Your task to perform on an android device: open wifi settings Image 0: 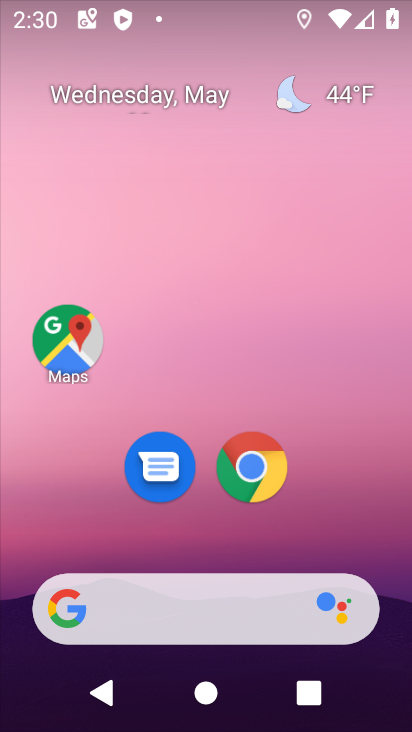
Step 0: drag from (276, 515) to (36, 2)
Your task to perform on an android device: open wifi settings Image 1: 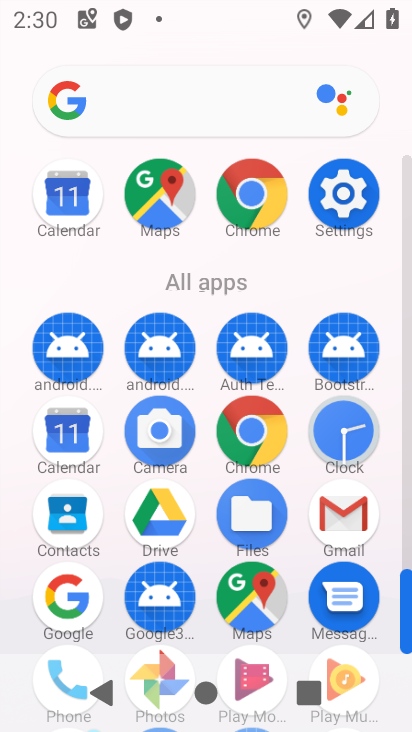
Step 1: click (328, 196)
Your task to perform on an android device: open wifi settings Image 2: 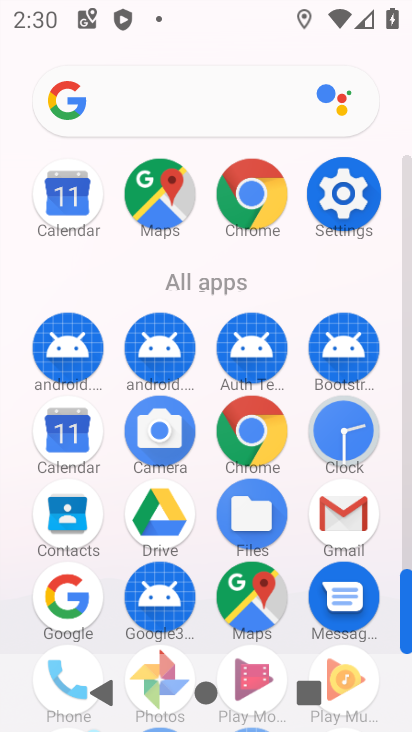
Step 2: click (353, 199)
Your task to perform on an android device: open wifi settings Image 3: 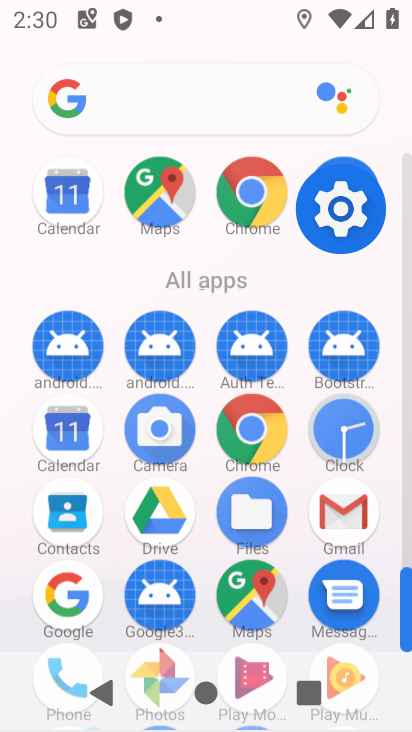
Step 3: click (346, 211)
Your task to perform on an android device: open wifi settings Image 4: 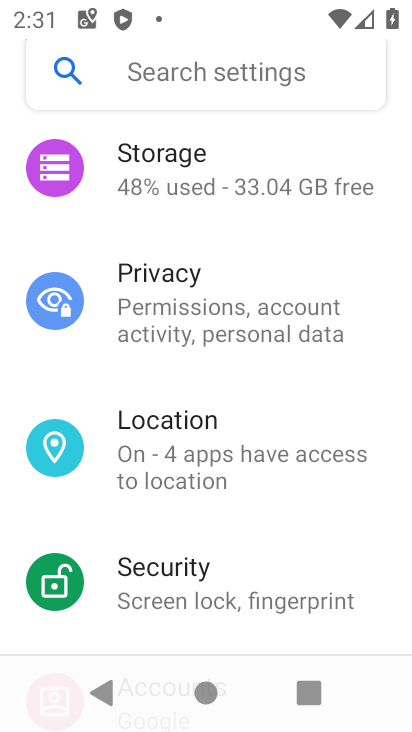
Step 4: drag from (228, 263) to (287, 500)
Your task to perform on an android device: open wifi settings Image 5: 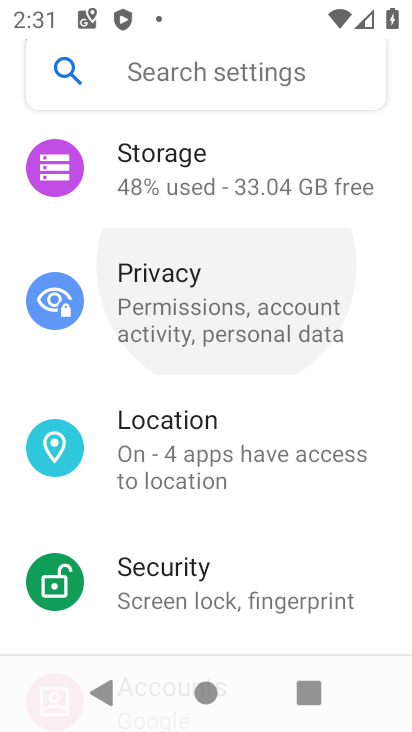
Step 5: drag from (197, 252) to (271, 545)
Your task to perform on an android device: open wifi settings Image 6: 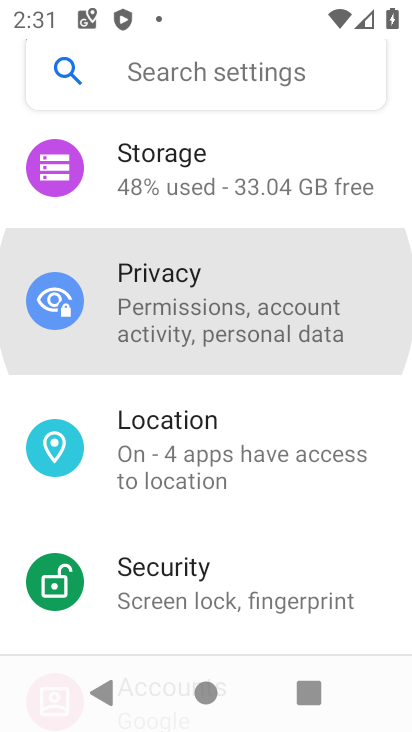
Step 6: drag from (212, 283) to (290, 590)
Your task to perform on an android device: open wifi settings Image 7: 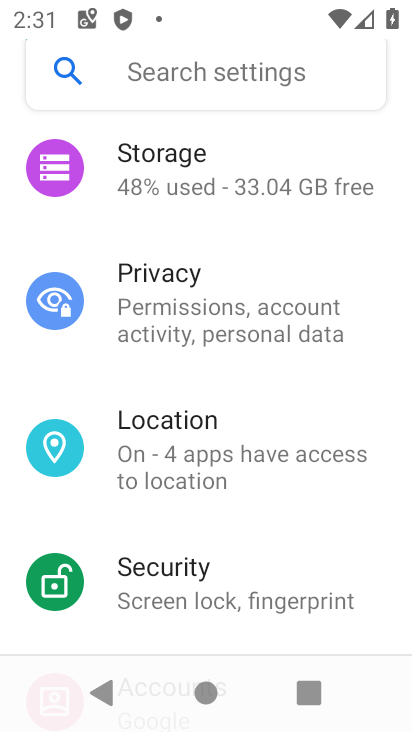
Step 7: drag from (155, 264) to (272, 534)
Your task to perform on an android device: open wifi settings Image 8: 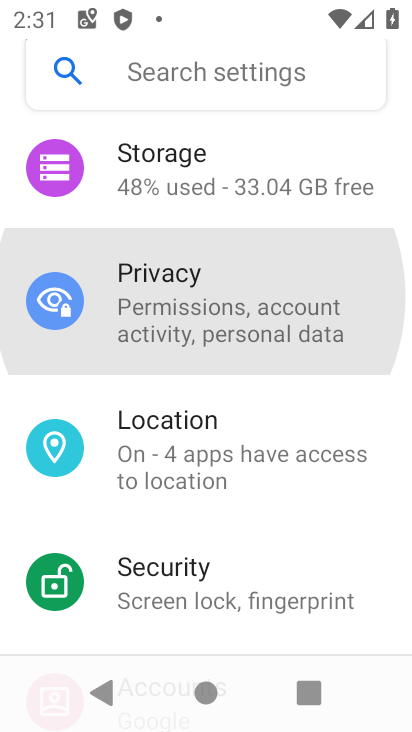
Step 8: drag from (204, 261) to (223, 450)
Your task to perform on an android device: open wifi settings Image 9: 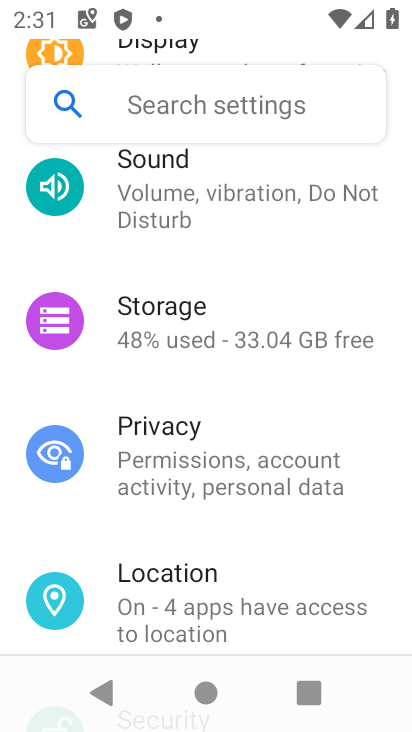
Step 9: drag from (154, 207) to (241, 532)
Your task to perform on an android device: open wifi settings Image 10: 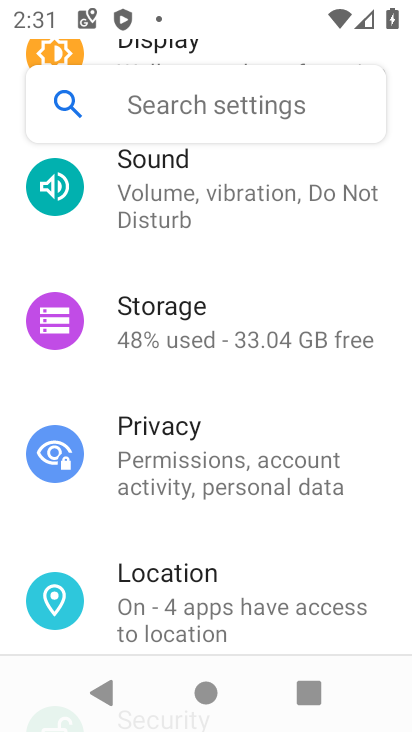
Step 10: drag from (177, 220) to (234, 465)
Your task to perform on an android device: open wifi settings Image 11: 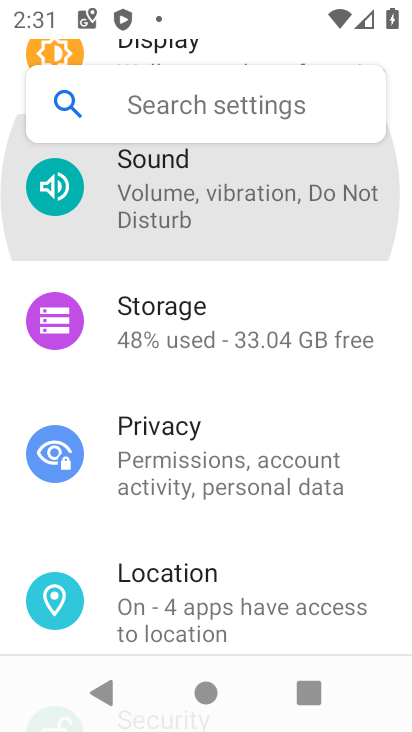
Step 11: drag from (166, 243) to (233, 459)
Your task to perform on an android device: open wifi settings Image 12: 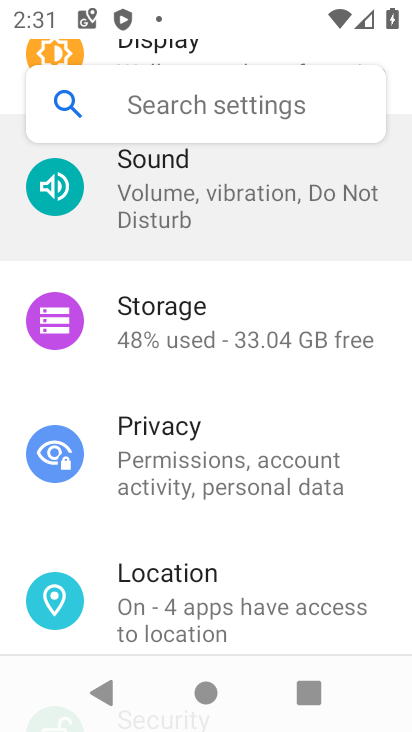
Step 12: drag from (207, 157) to (267, 455)
Your task to perform on an android device: open wifi settings Image 13: 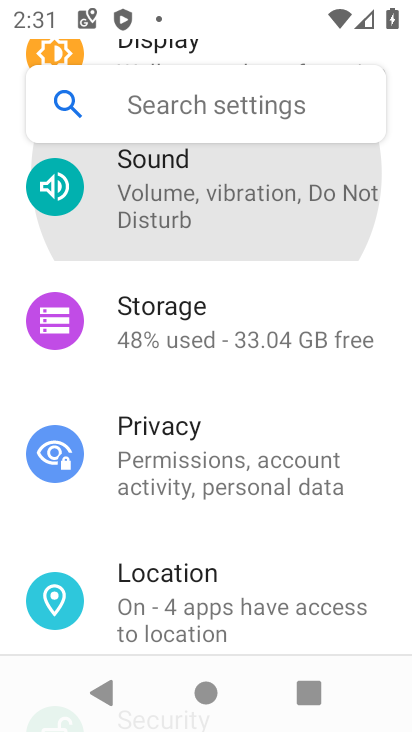
Step 13: drag from (220, 261) to (194, 456)
Your task to perform on an android device: open wifi settings Image 14: 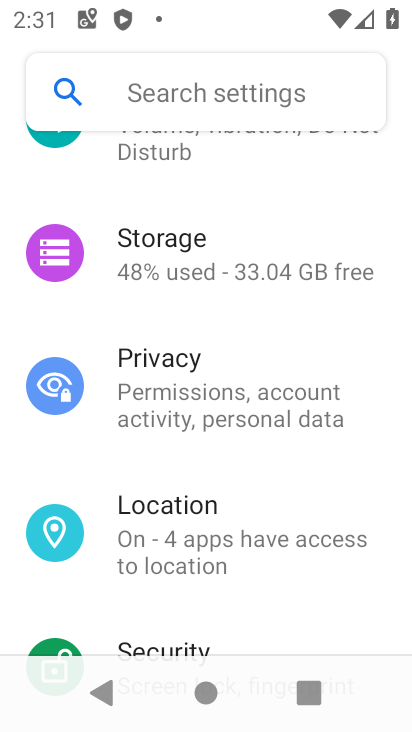
Step 14: drag from (190, 301) to (293, 496)
Your task to perform on an android device: open wifi settings Image 15: 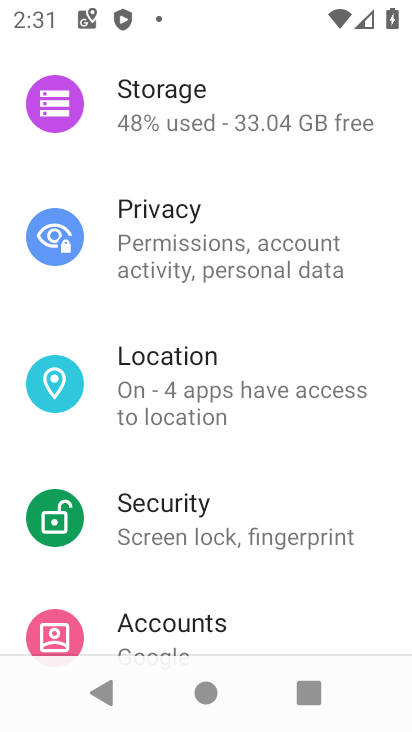
Step 15: drag from (192, 293) to (224, 469)
Your task to perform on an android device: open wifi settings Image 16: 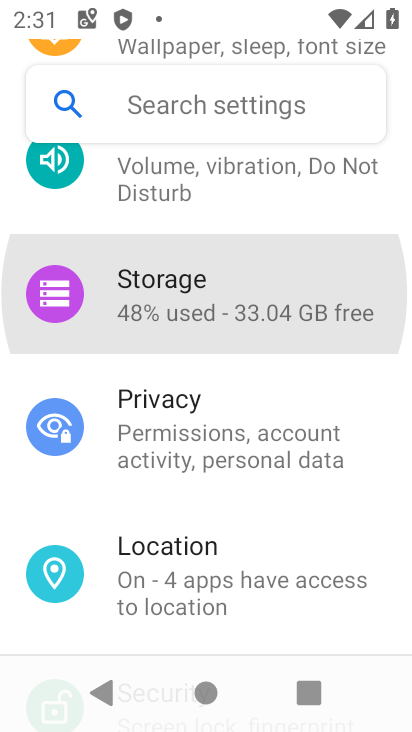
Step 16: drag from (210, 303) to (222, 469)
Your task to perform on an android device: open wifi settings Image 17: 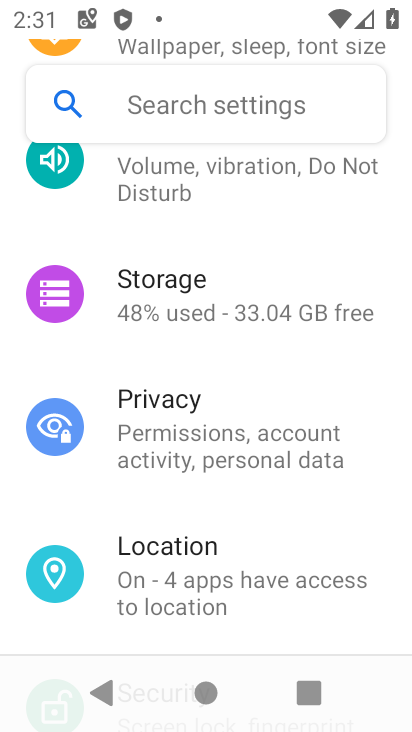
Step 17: drag from (149, 304) to (193, 469)
Your task to perform on an android device: open wifi settings Image 18: 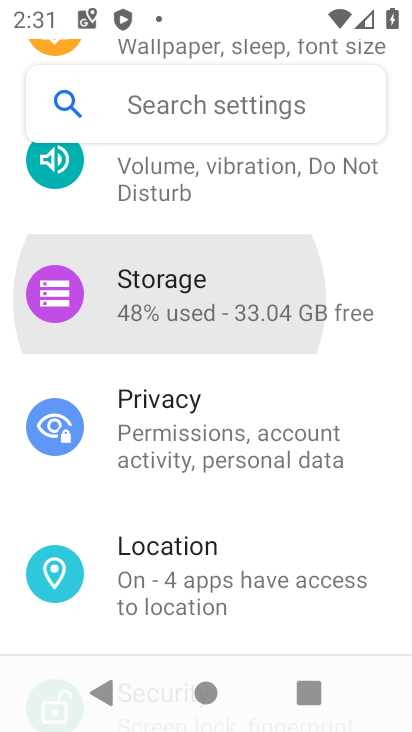
Step 18: drag from (93, 273) to (177, 493)
Your task to perform on an android device: open wifi settings Image 19: 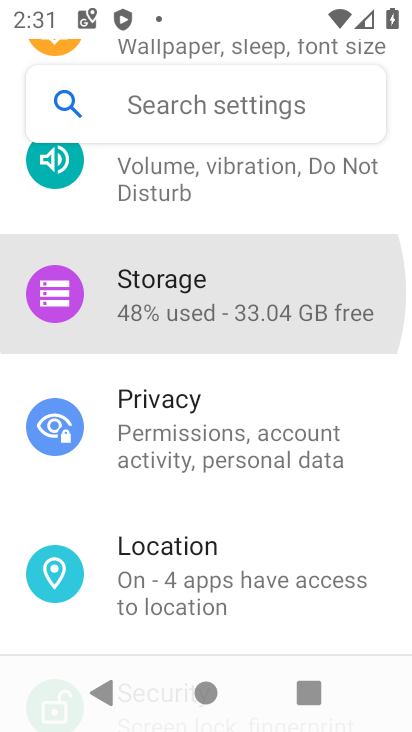
Step 19: drag from (130, 255) to (193, 544)
Your task to perform on an android device: open wifi settings Image 20: 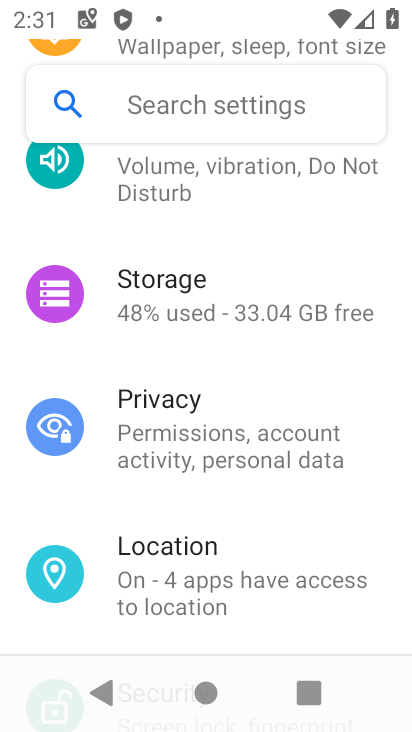
Step 20: drag from (172, 197) to (267, 517)
Your task to perform on an android device: open wifi settings Image 21: 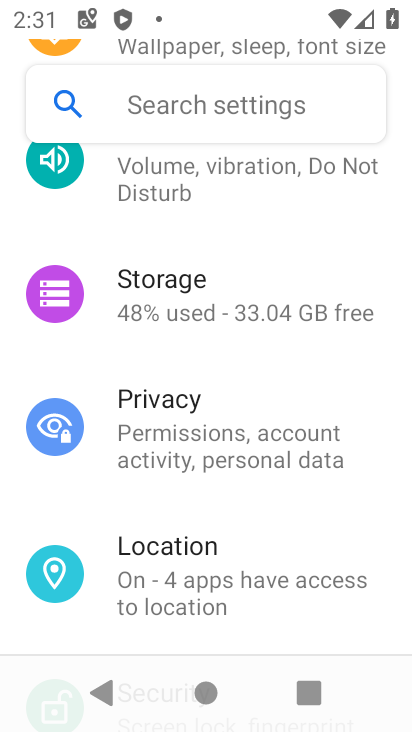
Step 21: drag from (142, 228) to (233, 532)
Your task to perform on an android device: open wifi settings Image 22: 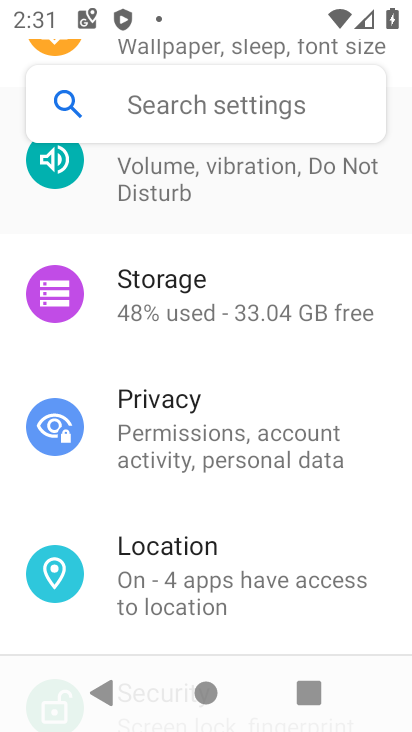
Step 22: drag from (162, 242) to (239, 649)
Your task to perform on an android device: open wifi settings Image 23: 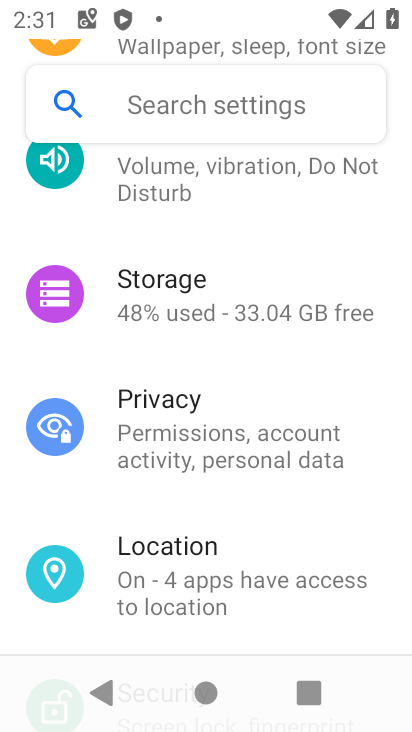
Step 23: drag from (165, 316) to (208, 535)
Your task to perform on an android device: open wifi settings Image 24: 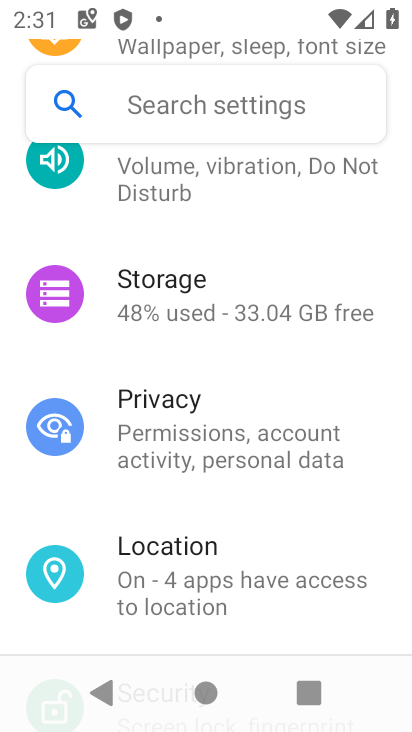
Step 24: drag from (200, 344) to (250, 711)
Your task to perform on an android device: open wifi settings Image 25: 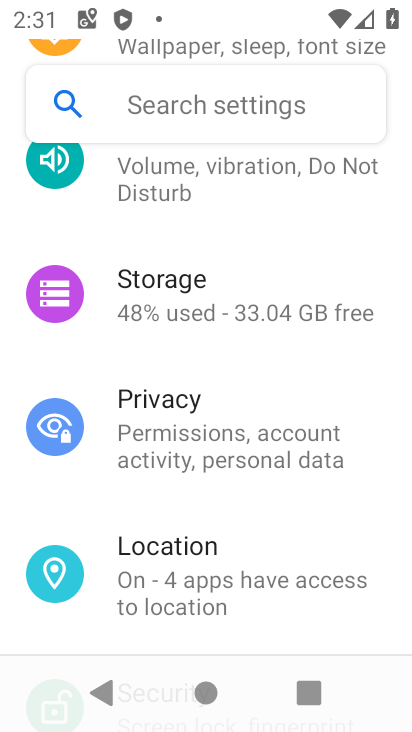
Step 25: drag from (182, 188) to (248, 461)
Your task to perform on an android device: open wifi settings Image 26: 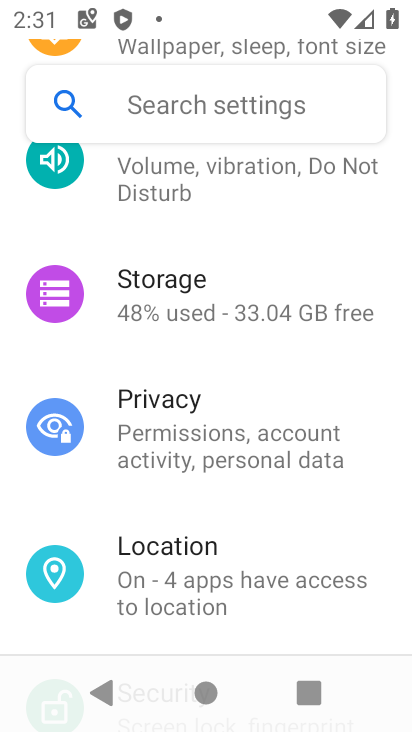
Step 26: drag from (216, 345) to (269, 531)
Your task to perform on an android device: open wifi settings Image 27: 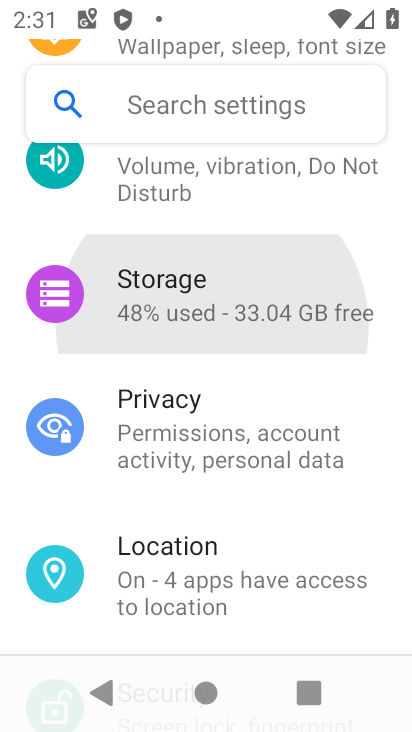
Step 27: drag from (170, 280) to (203, 460)
Your task to perform on an android device: open wifi settings Image 28: 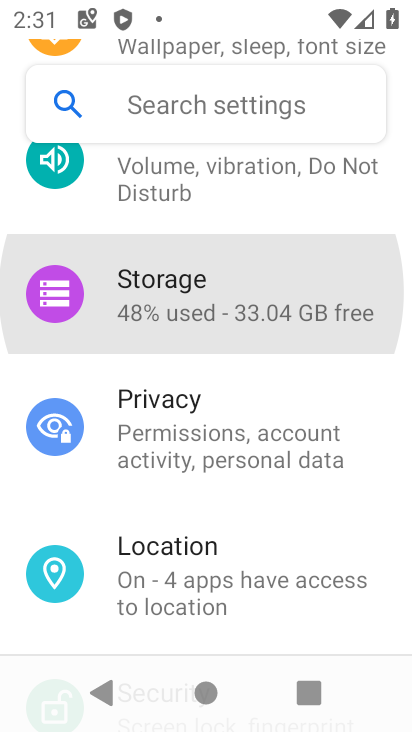
Step 28: drag from (120, 231) to (181, 390)
Your task to perform on an android device: open wifi settings Image 29: 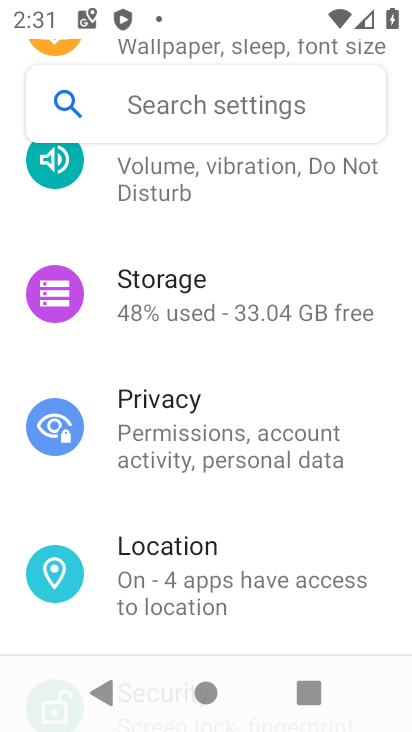
Step 29: drag from (278, 211) to (276, 566)
Your task to perform on an android device: open wifi settings Image 30: 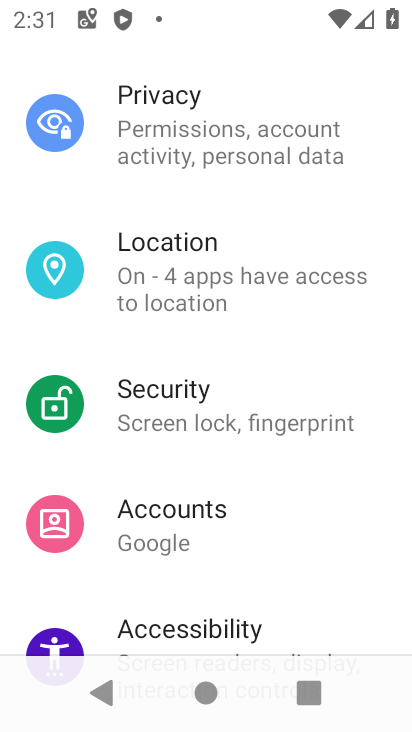
Step 30: drag from (232, 163) to (242, 537)
Your task to perform on an android device: open wifi settings Image 31: 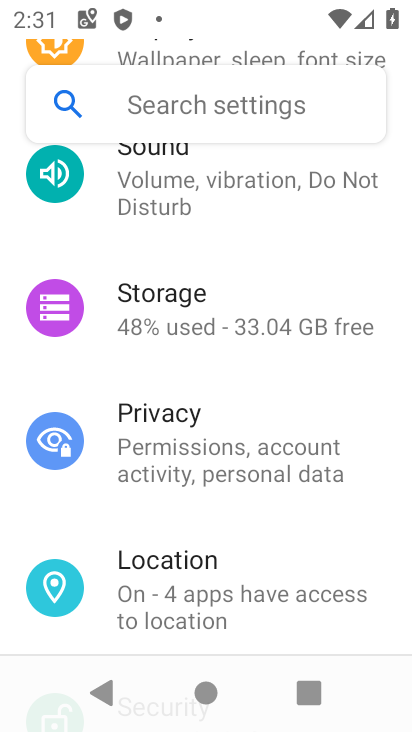
Step 31: drag from (173, 207) to (230, 496)
Your task to perform on an android device: open wifi settings Image 32: 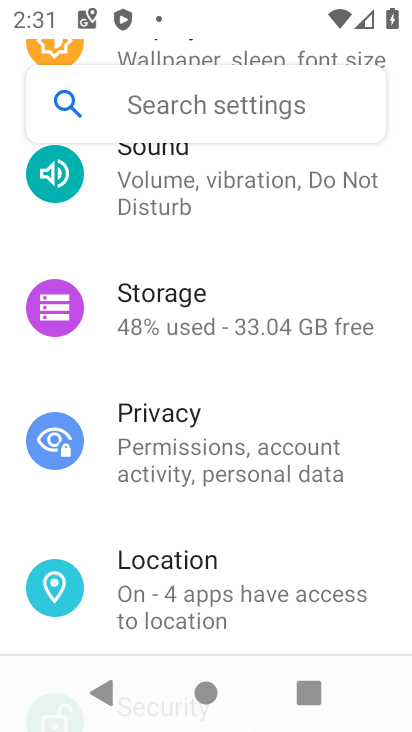
Step 32: drag from (191, 270) to (222, 507)
Your task to perform on an android device: open wifi settings Image 33: 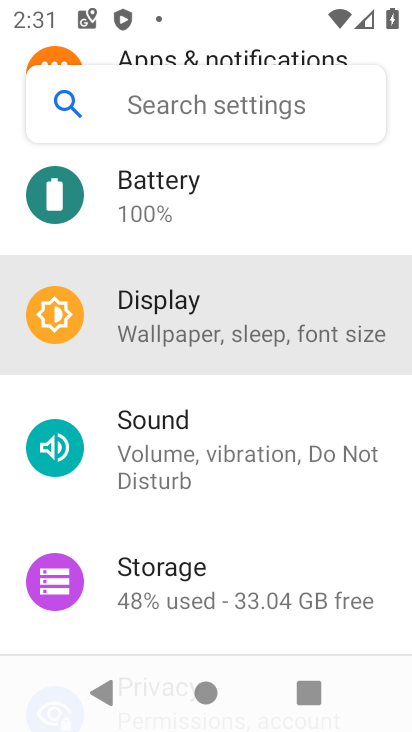
Step 33: drag from (214, 203) to (265, 595)
Your task to perform on an android device: open wifi settings Image 34: 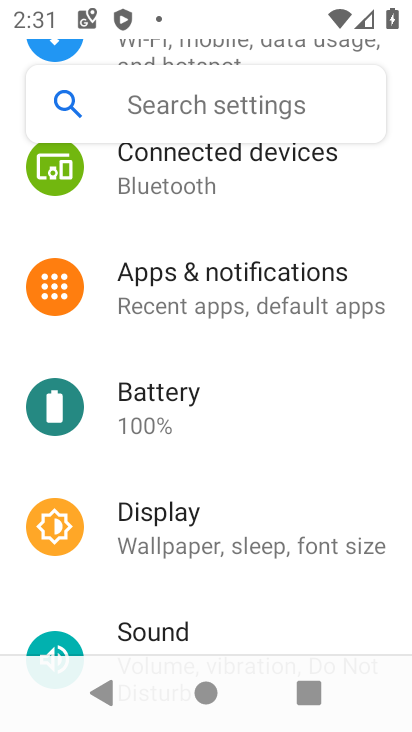
Step 34: click (175, 171)
Your task to perform on an android device: open wifi settings Image 35: 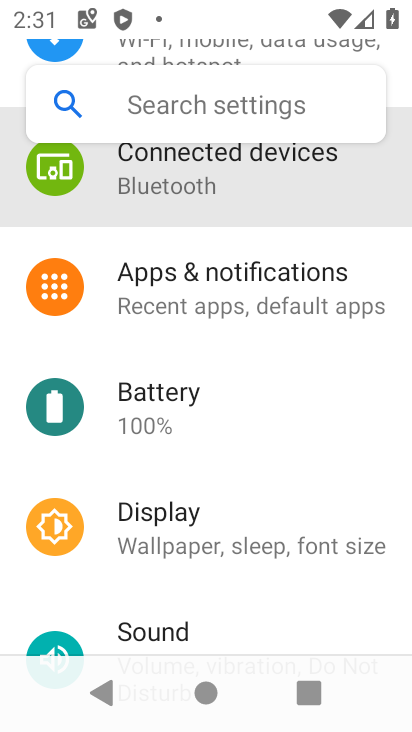
Step 35: click (175, 171)
Your task to perform on an android device: open wifi settings Image 36: 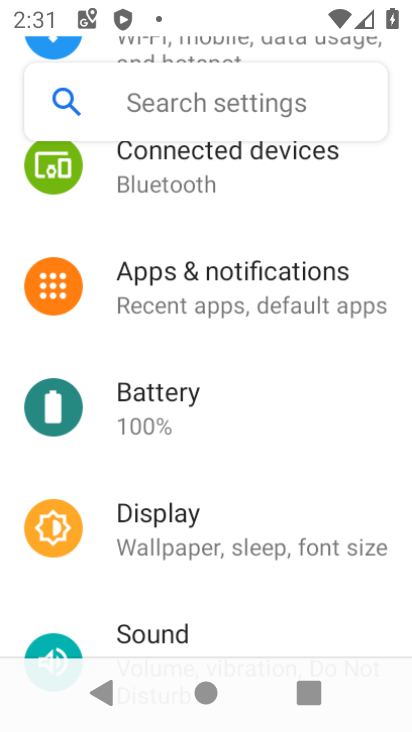
Step 36: click (175, 171)
Your task to perform on an android device: open wifi settings Image 37: 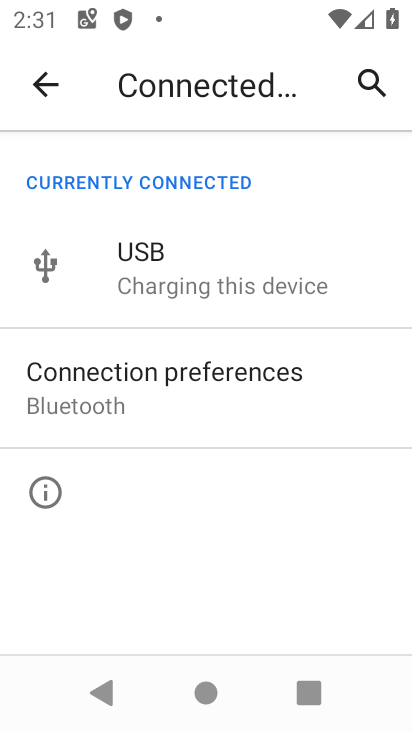
Step 37: click (49, 78)
Your task to perform on an android device: open wifi settings Image 38: 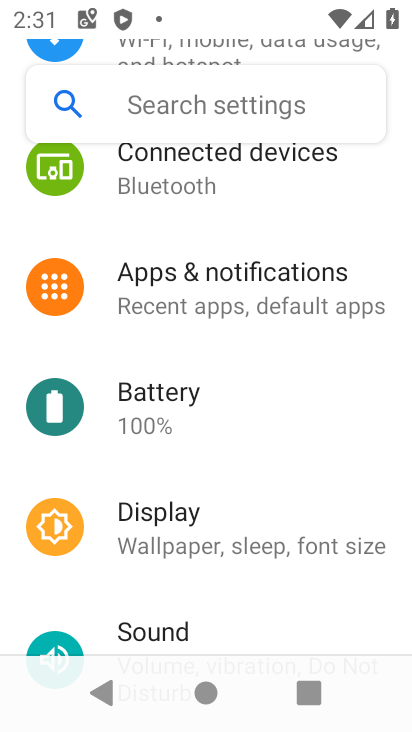
Step 38: drag from (182, 158) to (203, 549)
Your task to perform on an android device: open wifi settings Image 39: 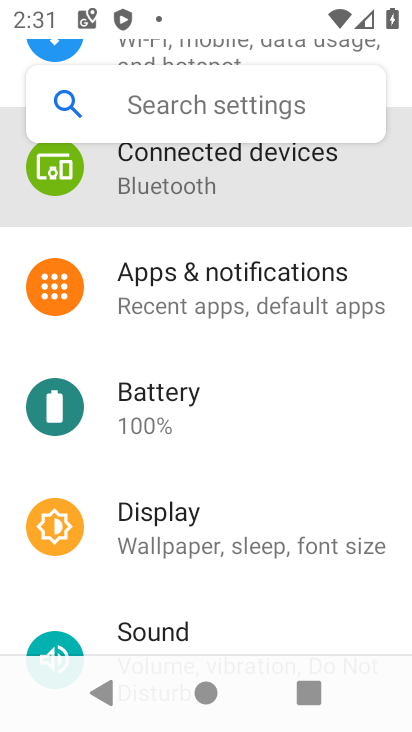
Step 39: drag from (170, 187) to (196, 484)
Your task to perform on an android device: open wifi settings Image 40: 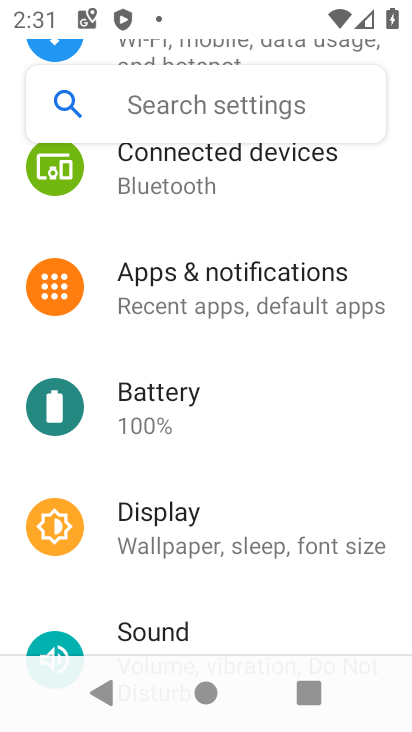
Step 40: drag from (135, 153) to (182, 416)
Your task to perform on an android device: open wifi settings Image 41: 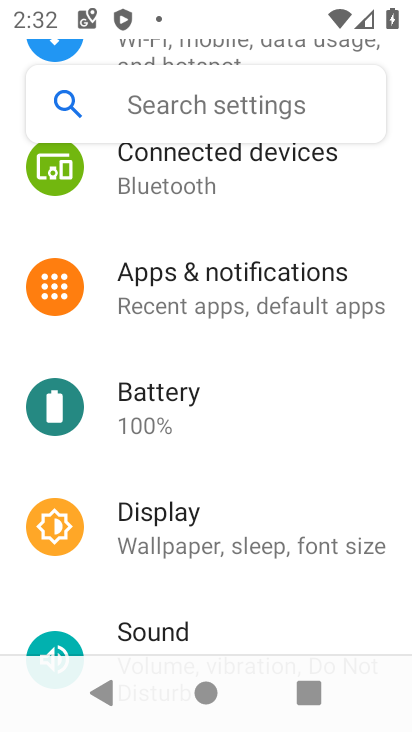
Step 41: drag from (172, 156) to (185, 544)
Your task to perform on an android device: open wifi settings Image 42: 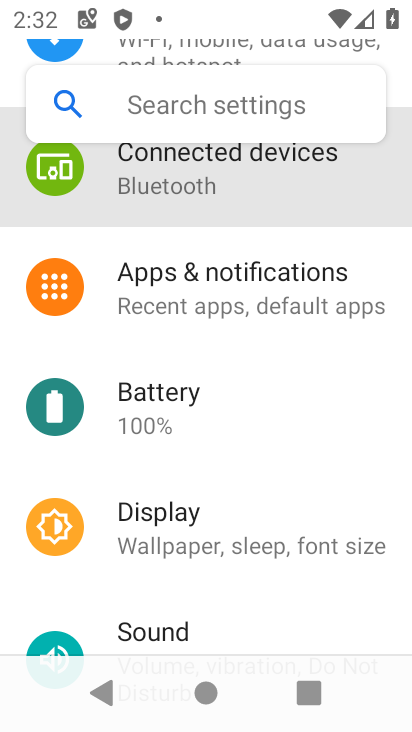
Step 42: drag from (113, 187) to (172, 564)
Your task to perform on an android device: open wifi settings Image 43: 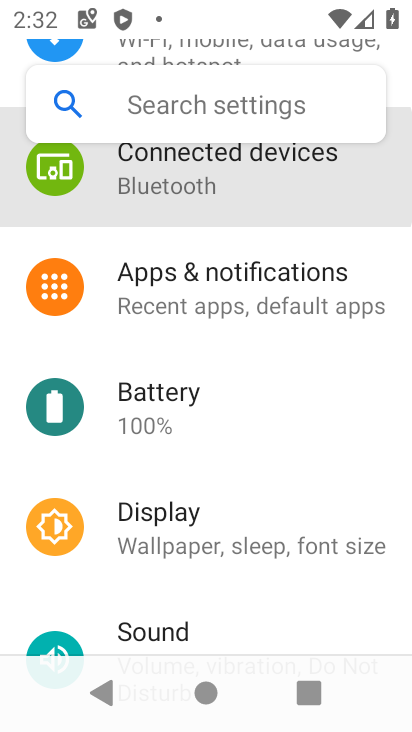
Step 43: drag from (170, 244) to (233, 577)
Your task to perform on an android device: open wifi settings Image 44: 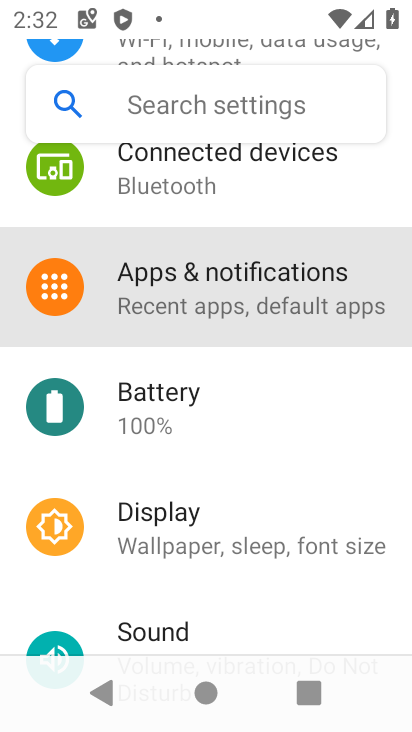
Step 44: drag from (176, 260) to (228, 623)
Your task to perform on an android device: open wifi settings Image 45: 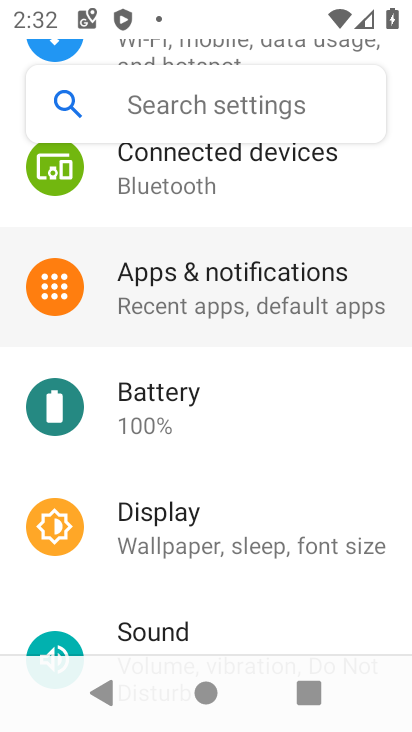
Step 45: drag from (191, 291) to (199, 526)
Your task to perform on an android device: open wifi settings Image 46: 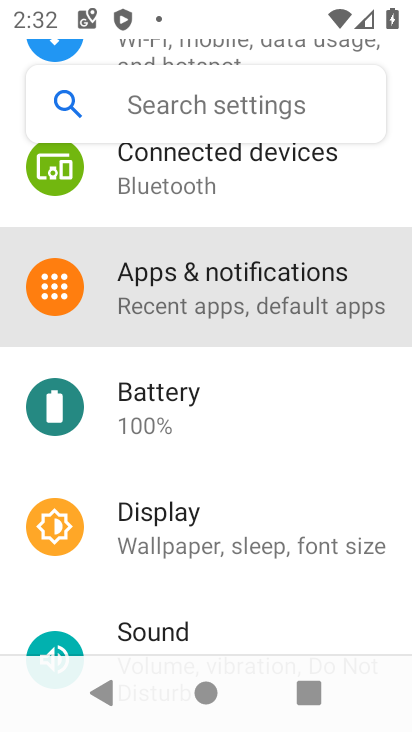
Step 46: drag from (158, 254) to (236, 551)
Your task to perform on an android device: open wifi settings Image 47: 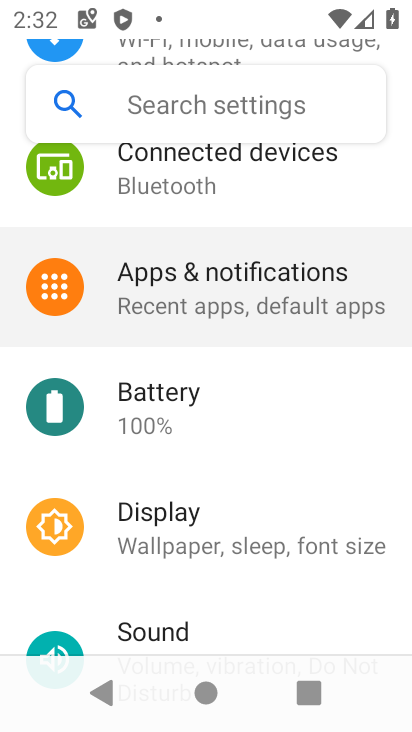
Step 47: drag from (160, 193) to (219, 512)
Your task to perform on an android device: open wifi settings Image 48: 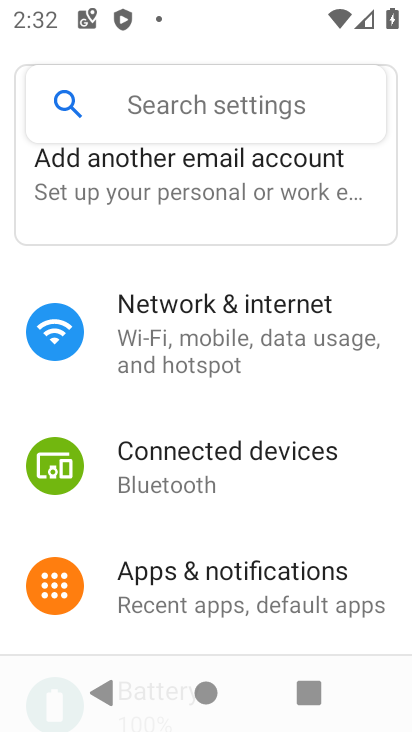
Step 48: click (175, 343)
Your task to perform on an android device: open wifi settings Image 49: 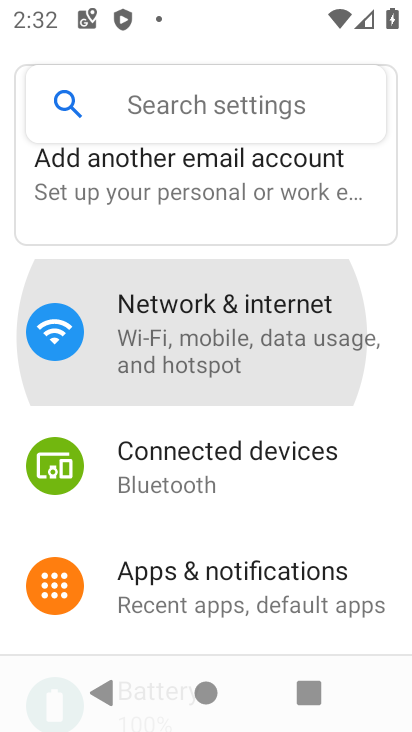
Step 49: click (196, 337)
Your task to perform on an android device: open wifi settings Image 50: 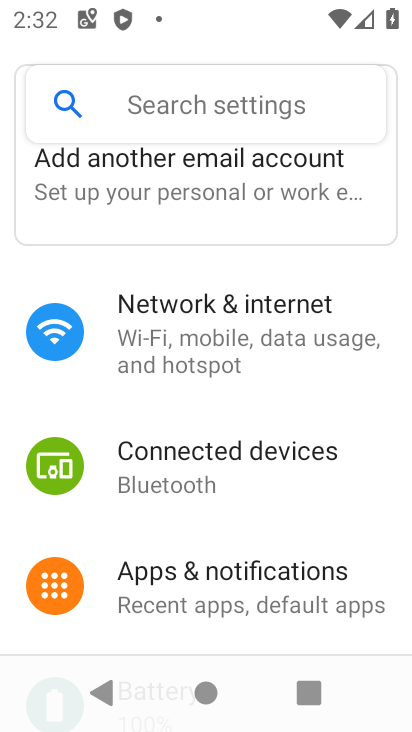
Step 50: click (204, 337)
Your task to perform on an android device: open wifi settings Image 51: 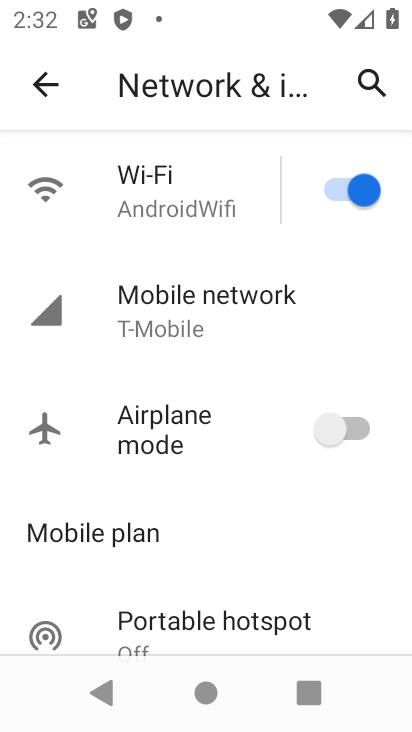
Step 51: task complete